Your task to perform on an android device: turn on the 24-hour format for clock Image 0: 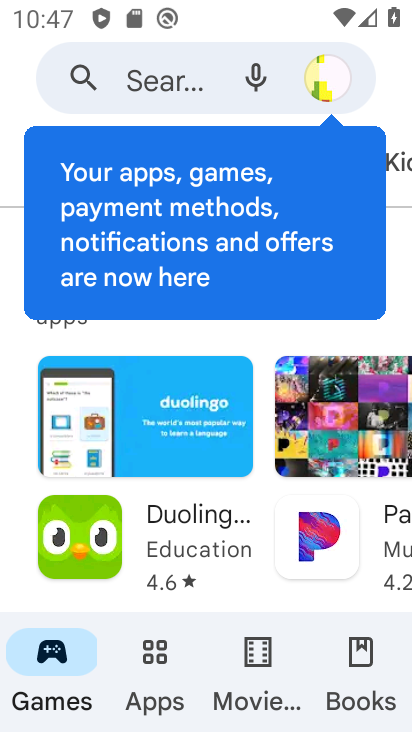
Step 0: press home button
Your task to perform on an android device: turn on the 24-hour format for clock Image 1: 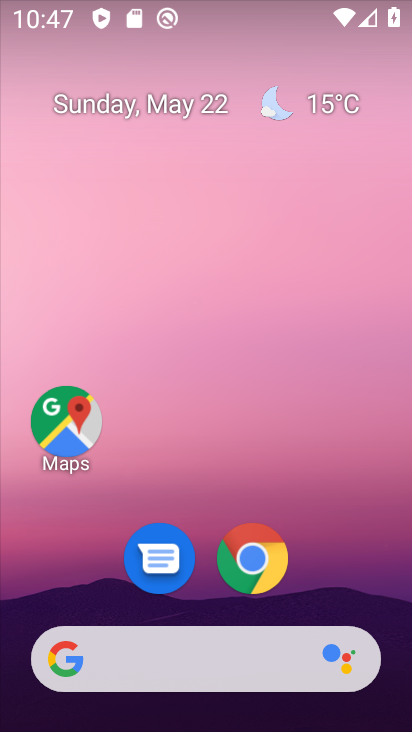
Step 1: drag from (345, 491) to (315, 11)
Your task to perform on an android device: turn on the 24-hour format for clock Image 2: 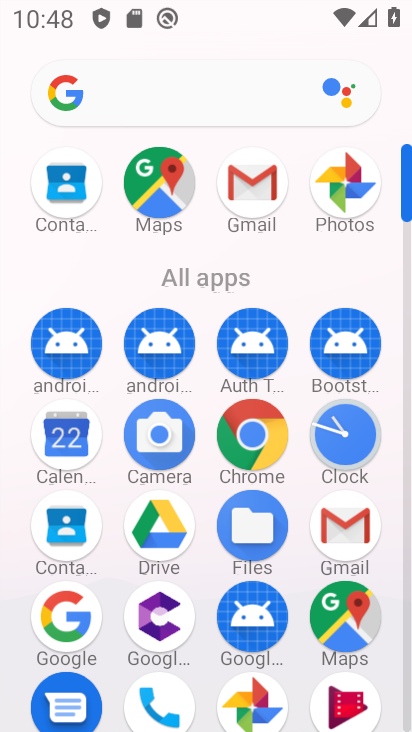
Step 2: click (406, 437)
Your task to perform on an android device: turn on the 24-hour format for clock Image 3: 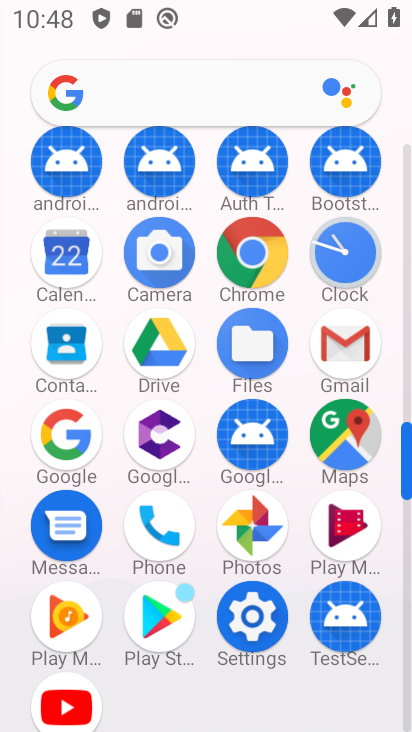
Step 3: click (334, 263)
Your task to perform on an android device: turn on the 24-hour format for clock Image 4: 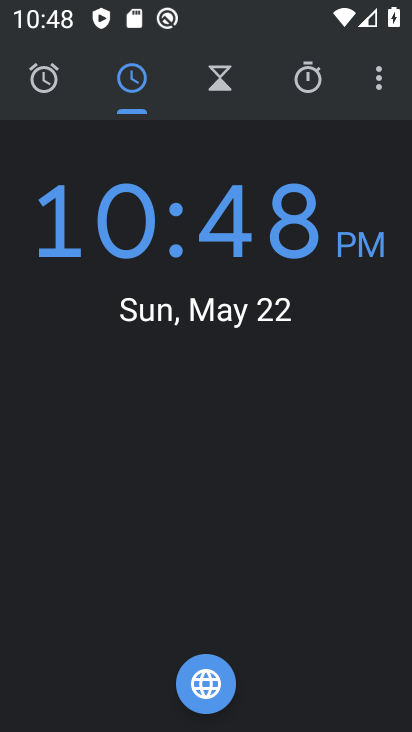
Step 4: click (380, 80)
Your task to perform on an android device: turn on the 24-hour format for clock Image 5: 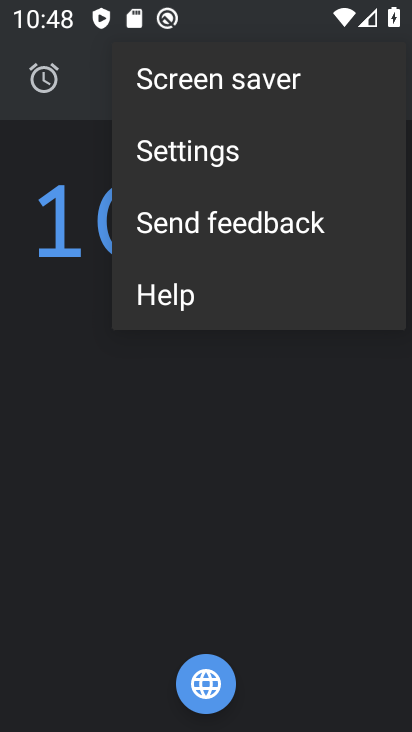
Step 5: click (185, 150)
Your task to perform on an android device: turn on the 24-hour format for clock Image 6: 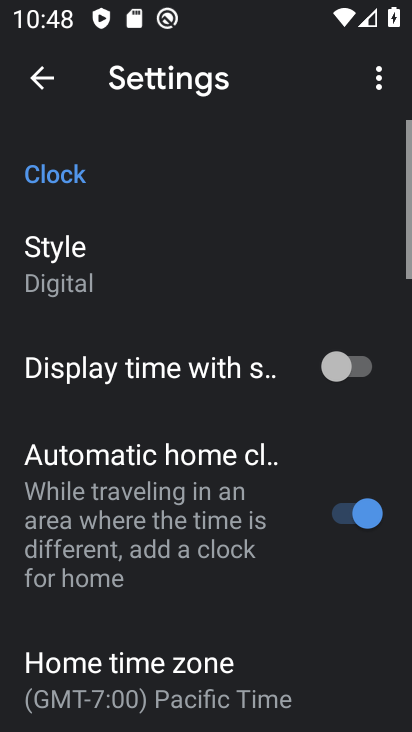
Step 6: drag from (248, 576) to (224, 141)
Your task to perform on an android device: turn on the 24-hour format for clock Image 7: 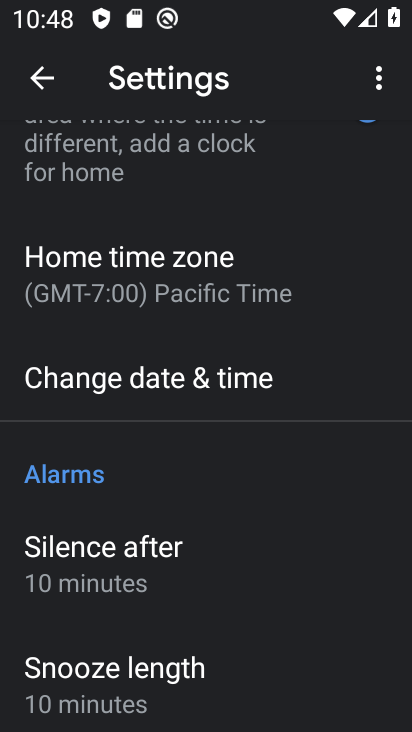
Step 7: click (121, 387)
Your task to perform on an android device: turn on the 24-hour format for clock Image 8: 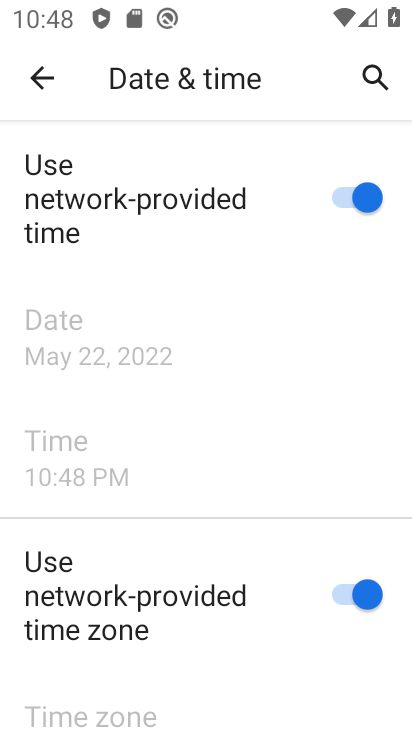
Step 8: drag from (163, 544) to (145, 149)
Your task to perform on an android device: turn on the 24-hour format for clock Image 9: 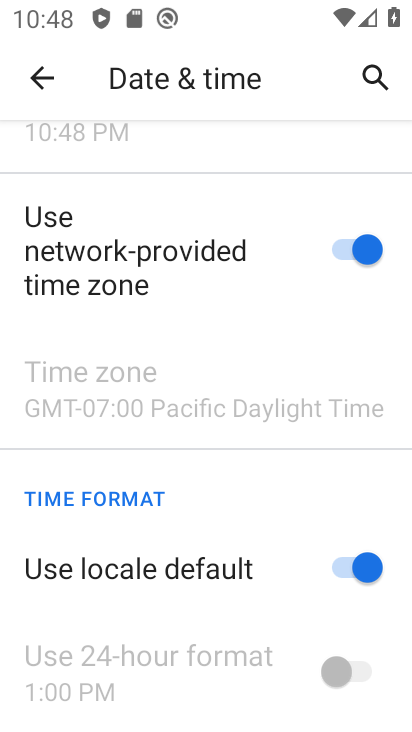
Step 9: drag from (141, 585) to (157, 287)
Your task to perform on an android device: turn on the 24-hour format for clock Image 10: 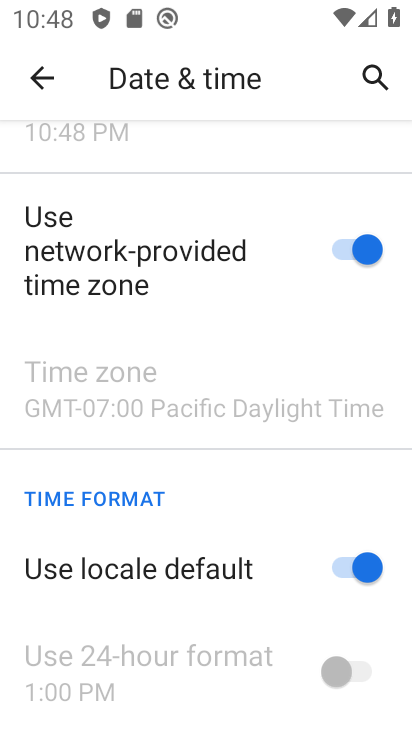
Step 10: click (358, 574)
Your task to perform on an android device: turn on the 24-hour format for clock Image 11: 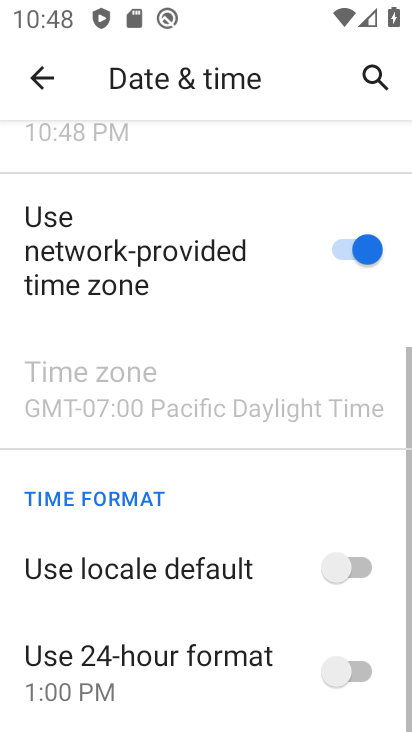
Step 11: click (334, 678)
Your task to perform on an android device: turn on the 24-hour format for clock Image 12: 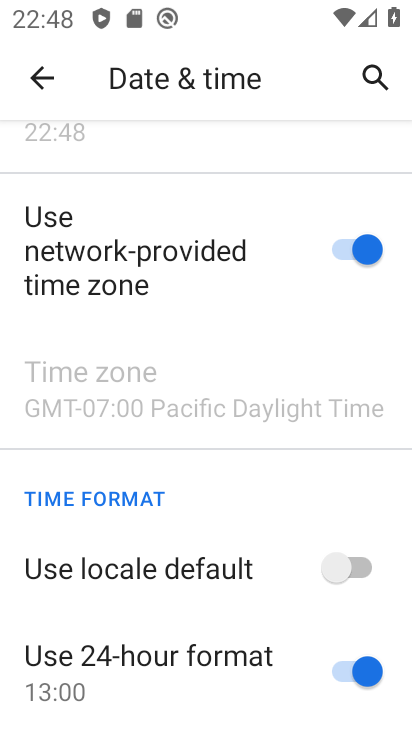
Step 12: task complete